Your task to perform on an android device: delete the emails in spam in the gmail app Image 0: 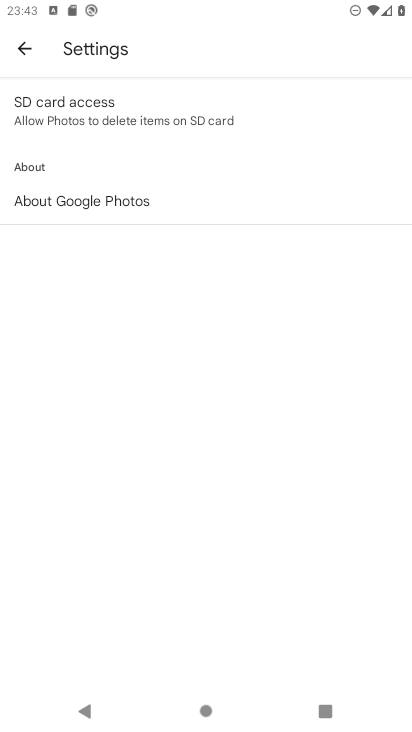
Step 0: press home button
Your task to perform on an android device: delete the emails in spam in the gmail app Image 1: 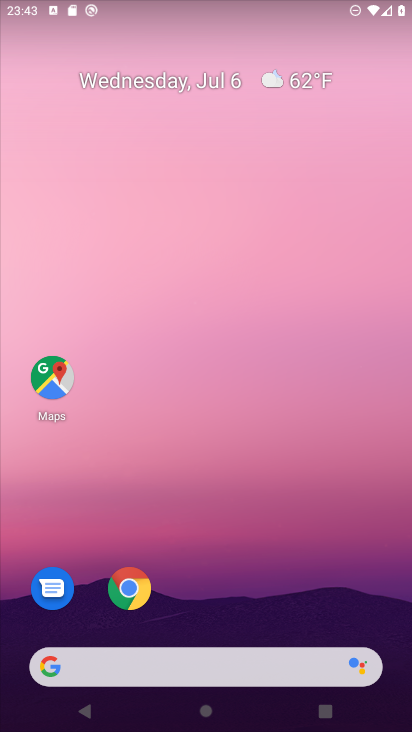
Step 1: drag from (365, 533) to (350, 79)
Your task to perform on an android device: delete the emails in spam in the gmail app Image 2: 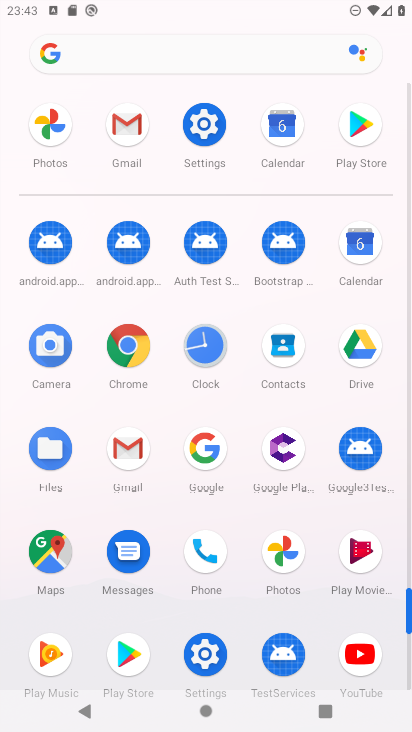
Step 2: click (126, 449)
Your task to perform on an android device: delete the emails in spam in the gmail app Image 3: 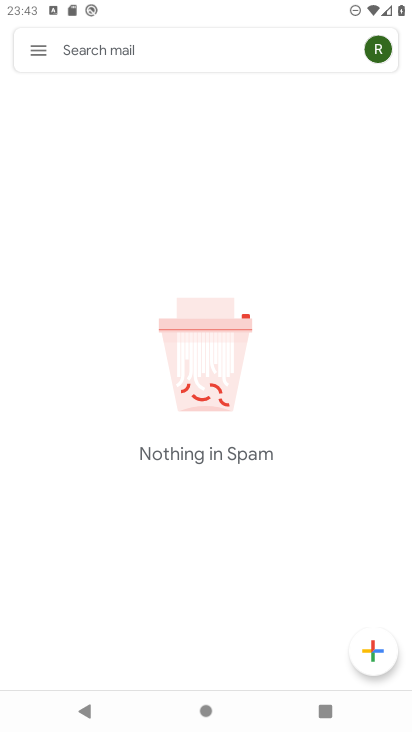
Step 3: drag from (232, 192) to (248, 500)
Your task to perform on an android device: delete the emails in spam in the gmail app Image 4: 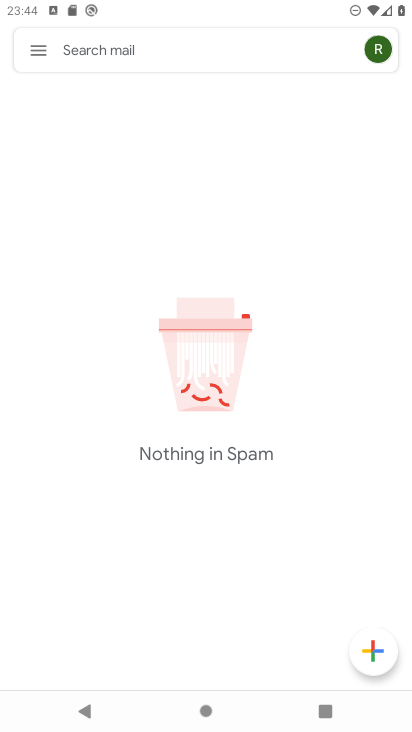
Step 4: click (35, 48)
Your task to perform on an android device: delete the emails in spam in the gmail app Image 5: 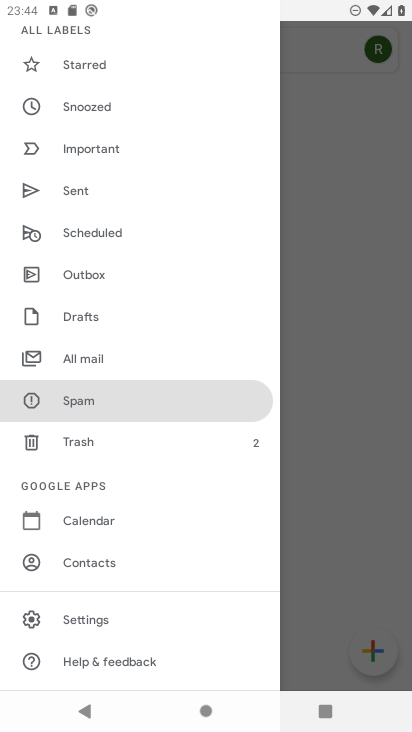
Step 5: click (108, 411)
Your task to perform on an android device: delete the emails in spam in the gmail app Image 6: 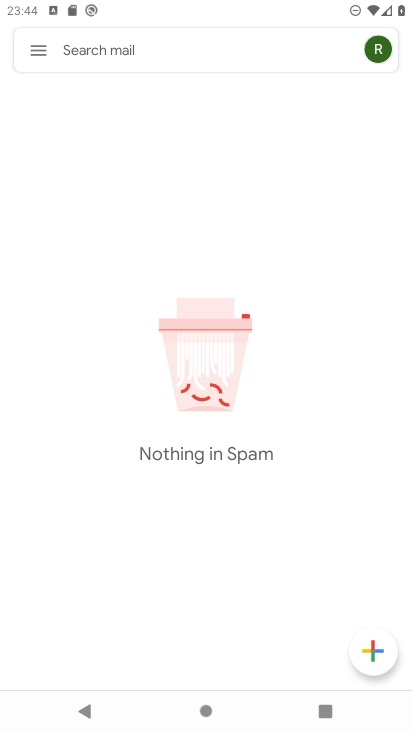
Step 6: task complete